Your task to perform on an android device: Do I have any events this weekend? Image 0: 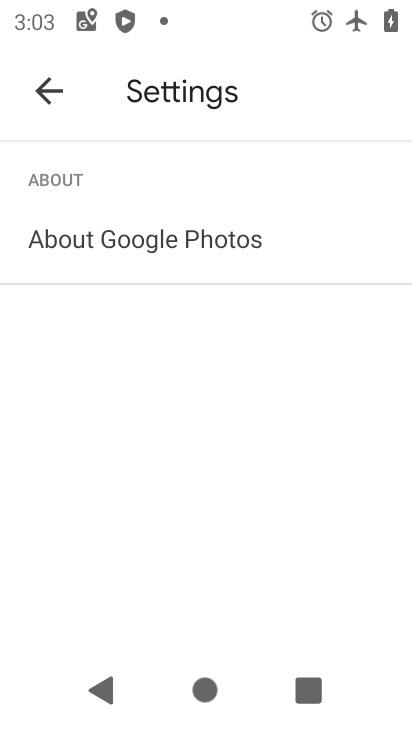
Step 0: press home button
Your task to perform on an android device: Do I have any events this weekend? Image 1: 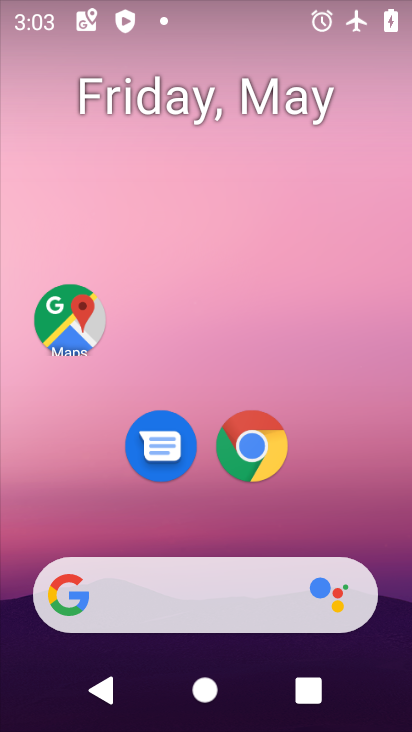
Step 1: drag from (392, 539) to (325, 89)
Your task to perform on an android device: Do I have any events this weekend? Image 2: 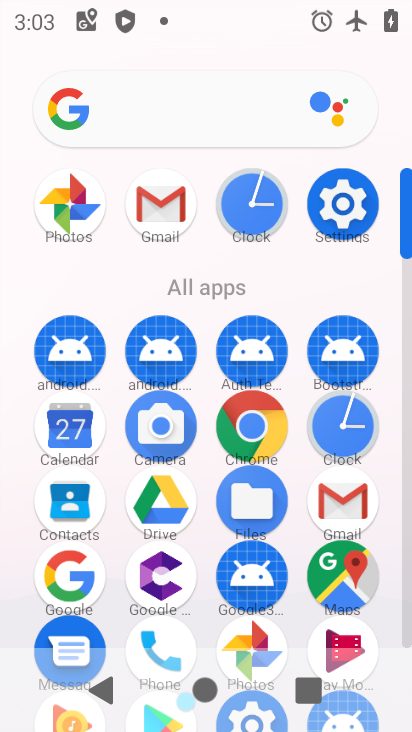
Step 2: click (80, 431)
Your task to perform on an android device: Do I have any events this weekend? Image 3: 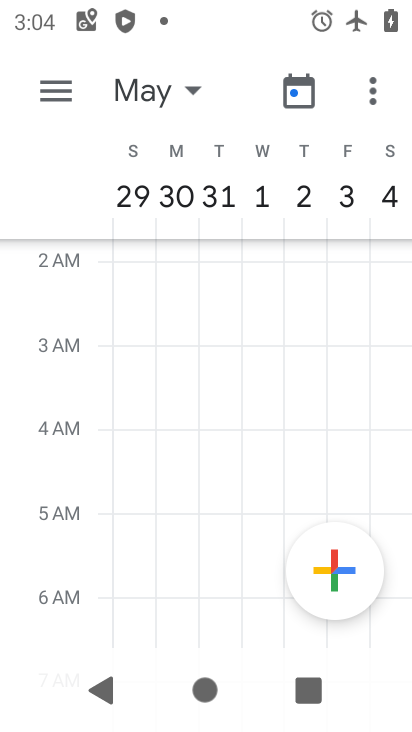
Step 3: click (58, 94)
Your task to perform on an android device: Do I have any events this weekend? Image 4: 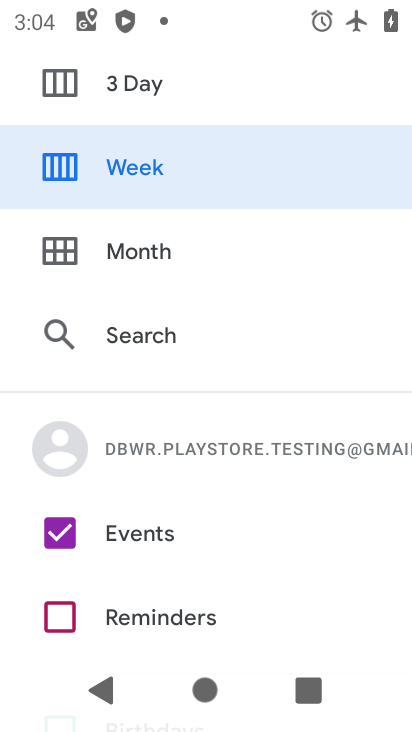
Step 4: click (145, 168)
Your task to perform on an android device: Do I have any events this weekend? Image 5: 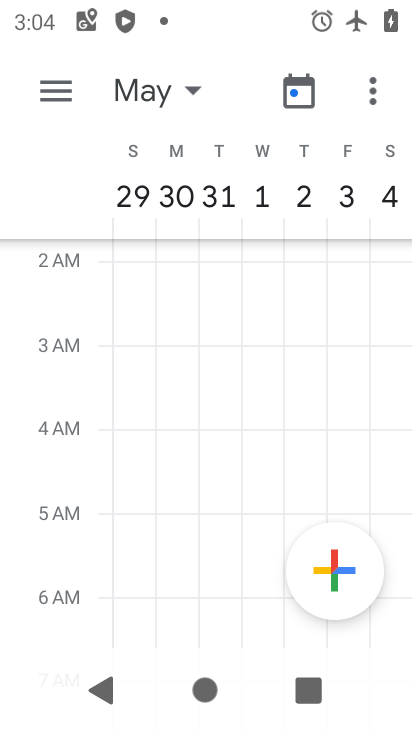
Step 5: drag from (163, 189) to (391, 122)
Your task to perform on an android device: Do I have any events this weekend? Image 6: 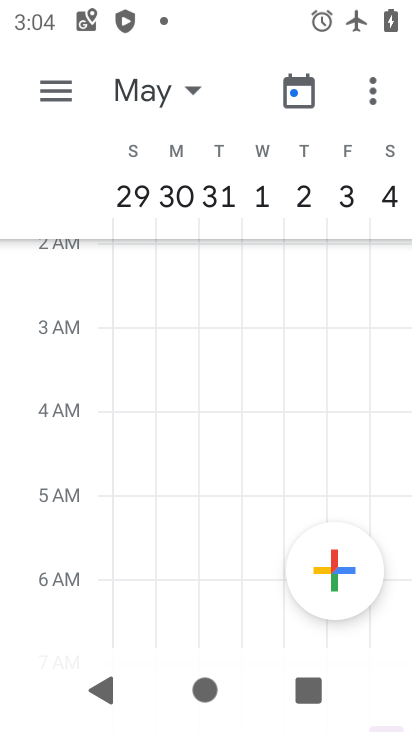
Step 6: click (187, 85)
Your task to perform on an android device: Do I have any events this weekend? Image 7: 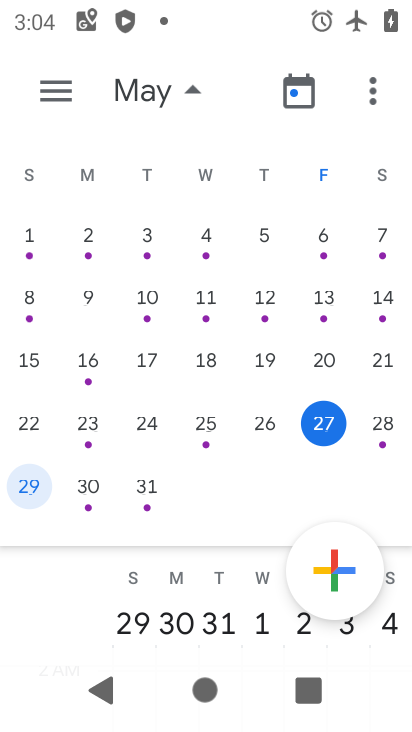
Step 7: click (325, 426)
Your task to perform on an android device: Do I have any events this weekend? Image 8: 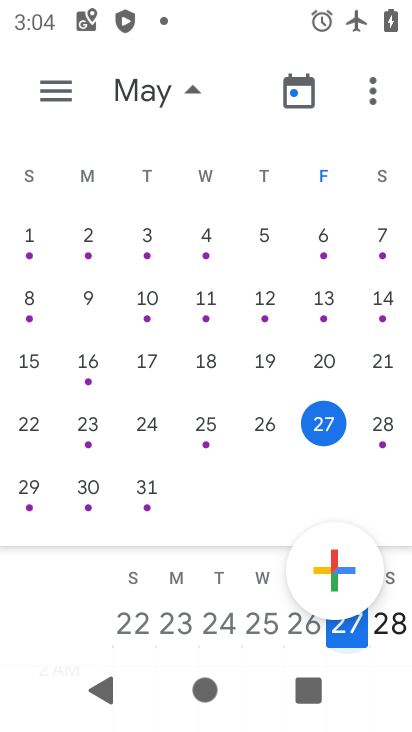
Step 8: click (172, 86)
Your task to perform on an android device: Do I have any events this weekend? Image 9: 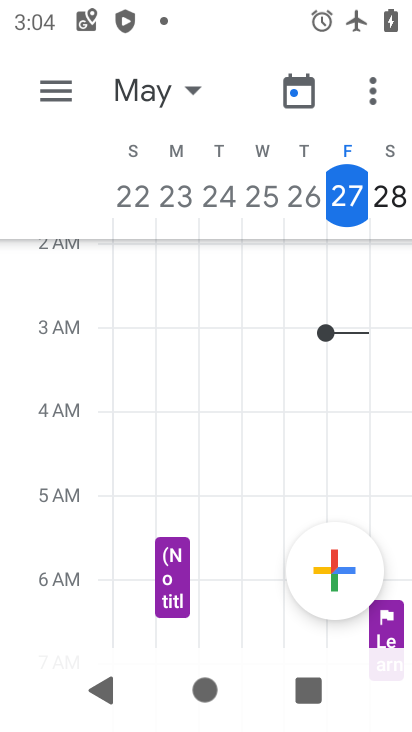
Step 9: task complete